Your task to perform on an android device: Do I have any events this weekend? Image 0: 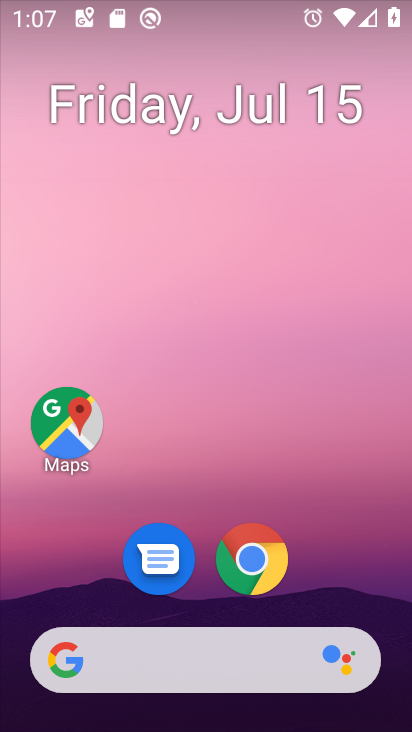
Step 0: drag from (368, 547) to (342, 136)
Your task to perform on an android device: Do I have any events this weekend? Image 1: 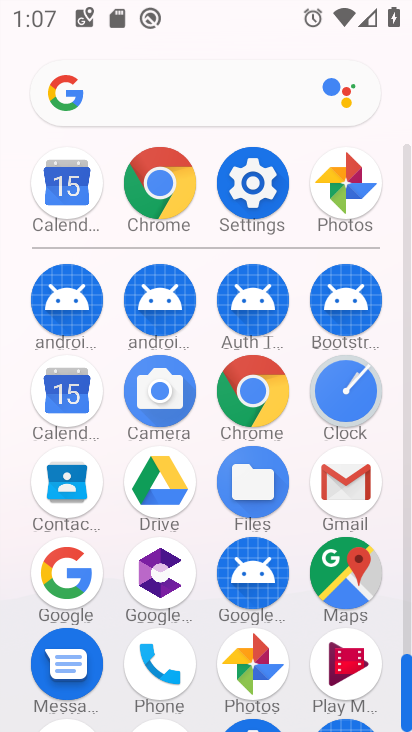
Step 1: click (73, 399)
Your task to perform on an android device: Do I have any events this weekend? Image 2: 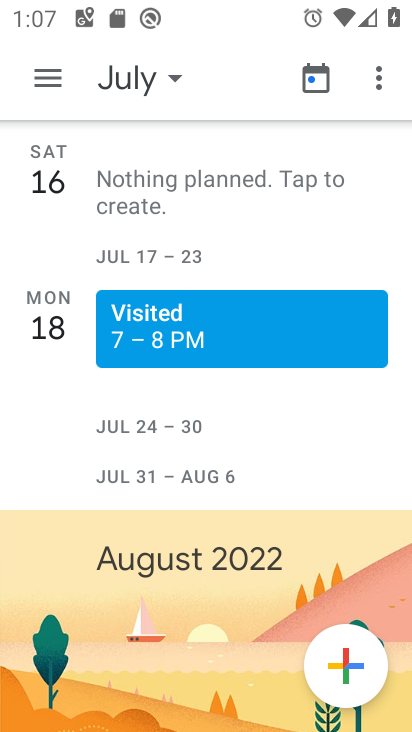
Step 2: click (174, 82)
Your task to perform on an android device: Do I have any events this weekend? Image 3: 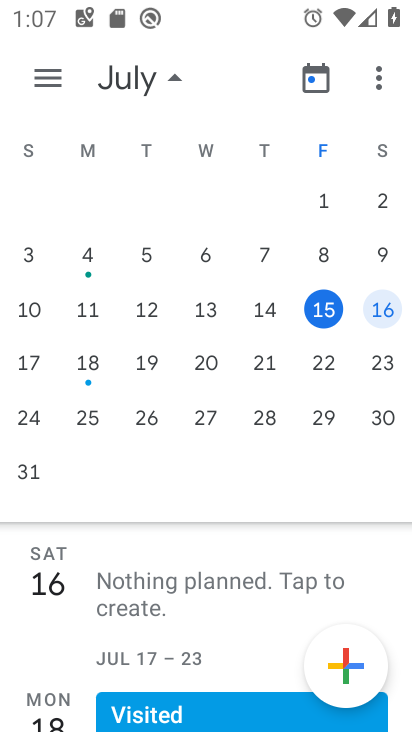
Step 3: click (391, 307)
Your task to perform on an android device: Do I have any events this weekend? Image 4: 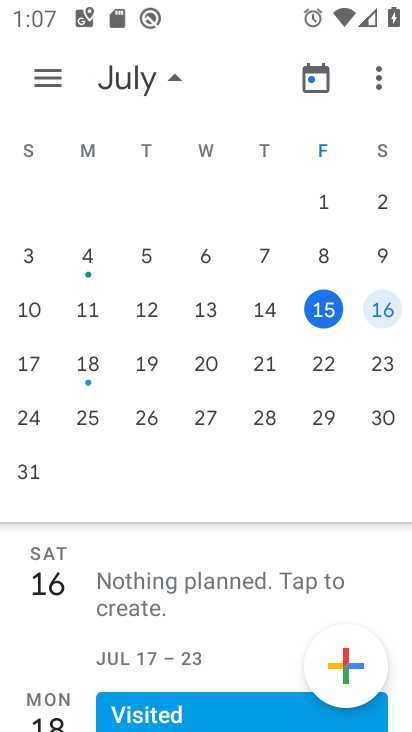
Step 4: task complete